Your task to perform on an android device: turn on the 12-hour format for clock Image 0: 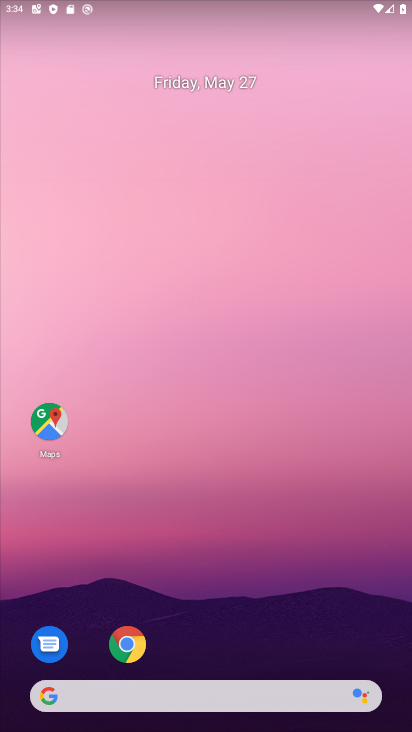
Step 0: drag from (269, 625) to (204, 54)
Your task to perform on an android device: turn on the 12-hour format for clock Image 1: 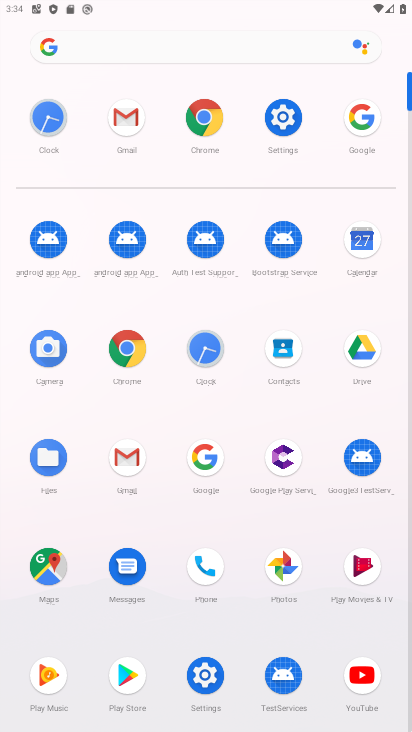
Step 1: click (205, 362)
Your task to perform on an android device: turn on the 12-hour format for clock Image 2: 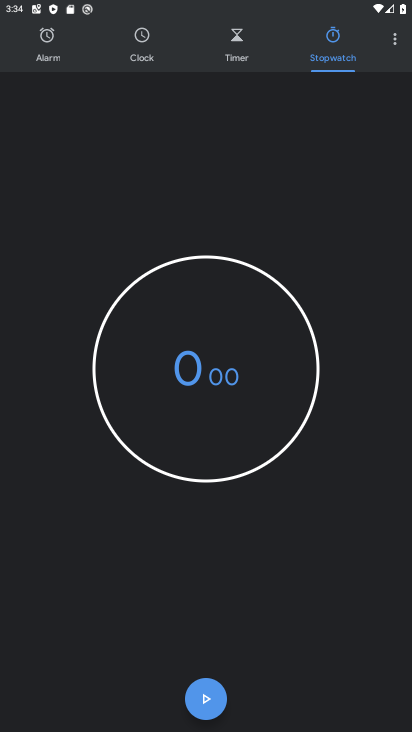
Step 2: click (390, 45)
Your task to perform on an android device: turn on the 12-hour format for clock Image 3: 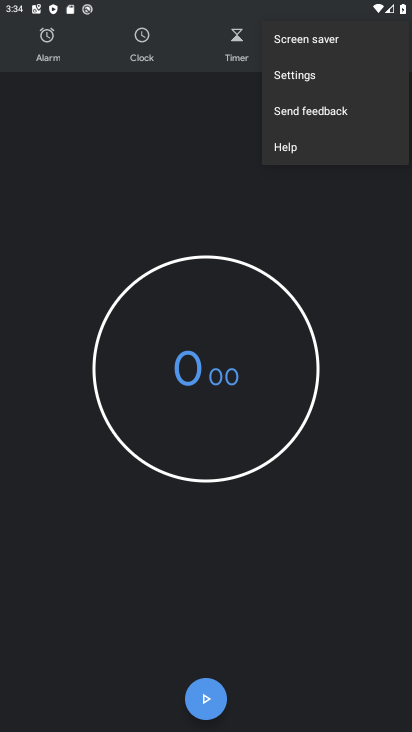
Step 3: click (324, 61)
Your task to perform on an android device: turn on the 12-hour format for clock Image 4: 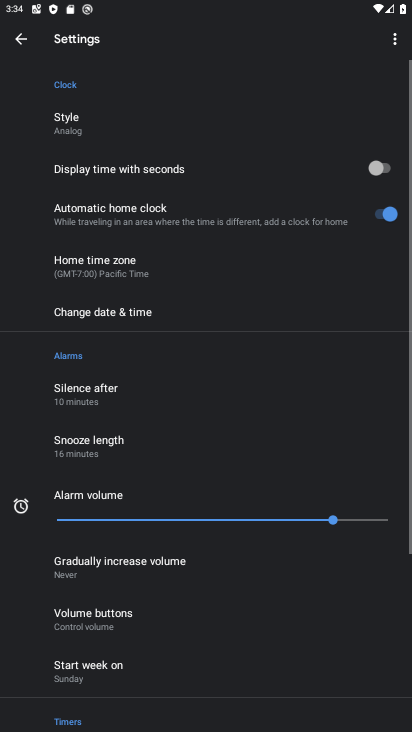
Step 4: click (246, 305)
Your task to perform on an android device: turn on the 12-hour format for clock Image 5: 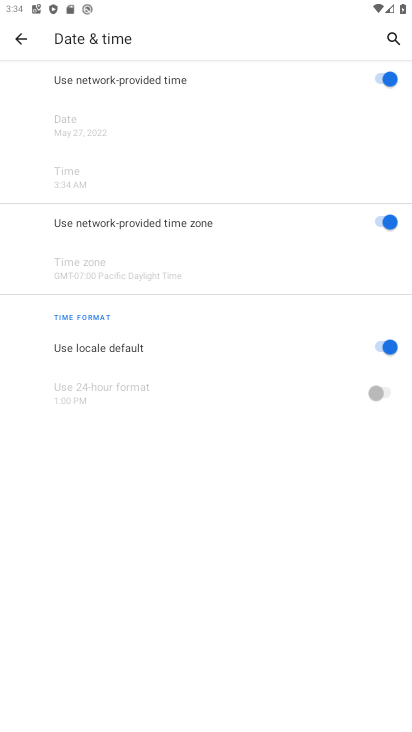
Step 5: task complete